Your task to perform on an android device: add a label to a message in the gmail app Image 0: 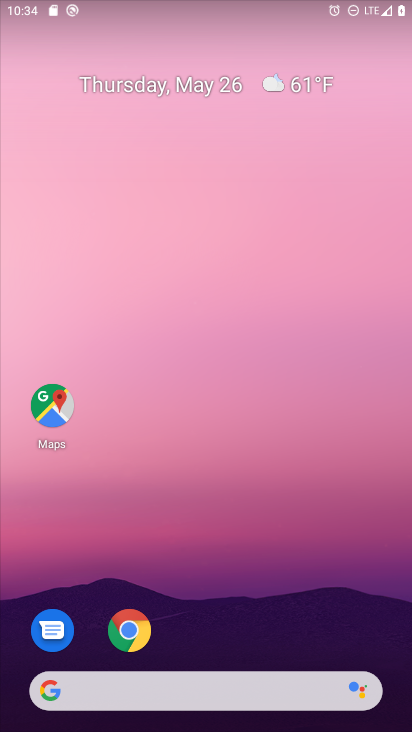
Step 0: drag from (229, 655) to (301, 33)
Your task to perform on an android device: add a label to a message in the gmail app Image 1: 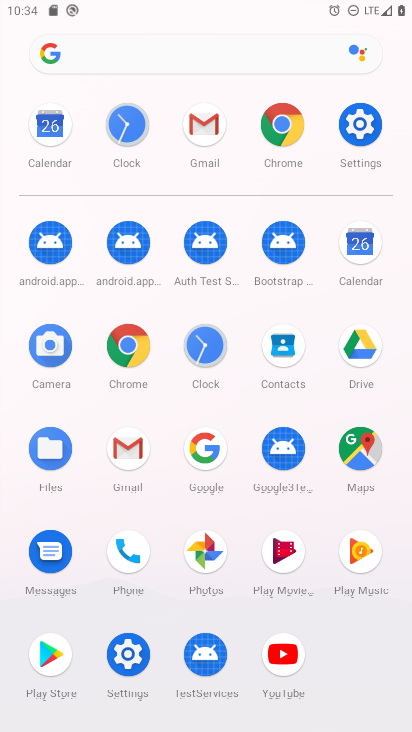
Step 1: click (126, 462)
Your task to perform on an android device: add a label to a message in the gmail app Image 2: 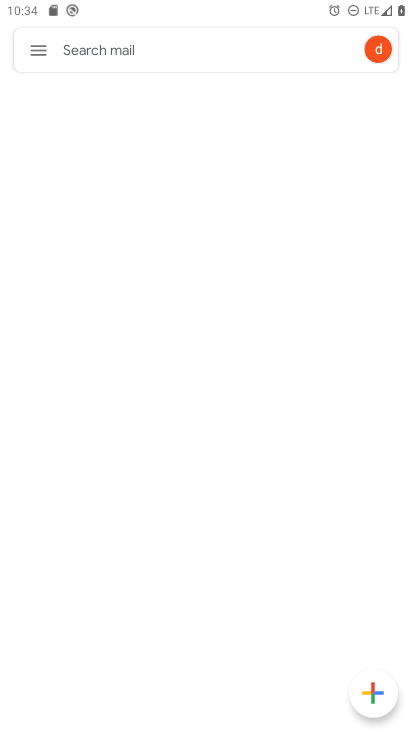
Step 2: task complete